Your task to perform on an android device: turn off location history Image 0: 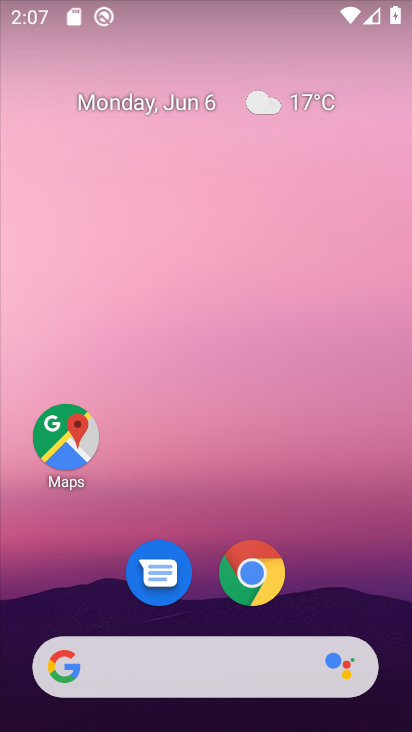
Step 0: drag from (383, 642) to (240, 11)
Your task to perform on an android device: turn off location history Image 1: 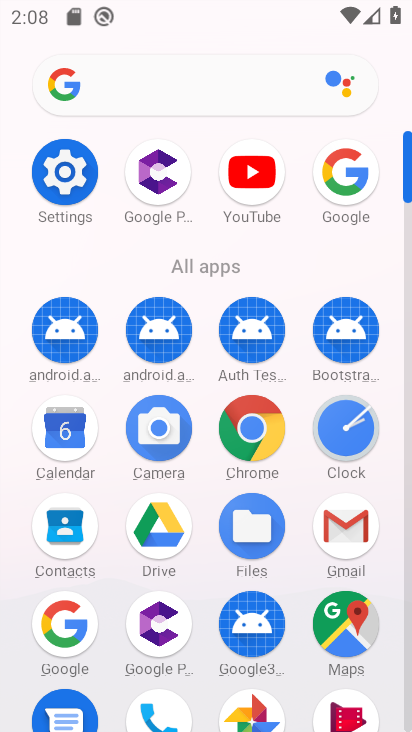
Step 1: click (57, 180)
Your task to perform on an android device: turn off location history Image 2: 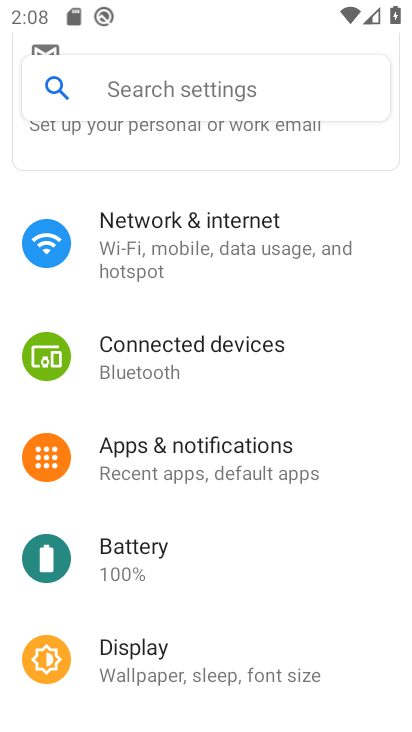
Step 2: click (193, 670)
Your task to perform on an android device: turn off location history Image 3: 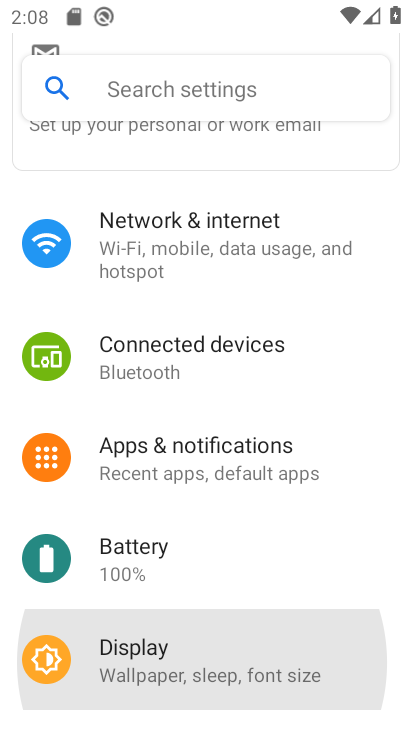
Step 3: drag from (216, 491) to (199, 178)
Your task to perform on an android device: turn off location history Image 4: 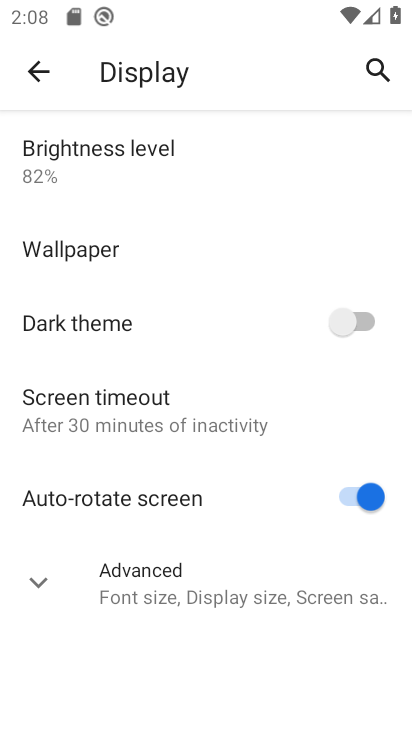
Step 4: press back button
Your task to perform on an android device: turn off location history Image 5: 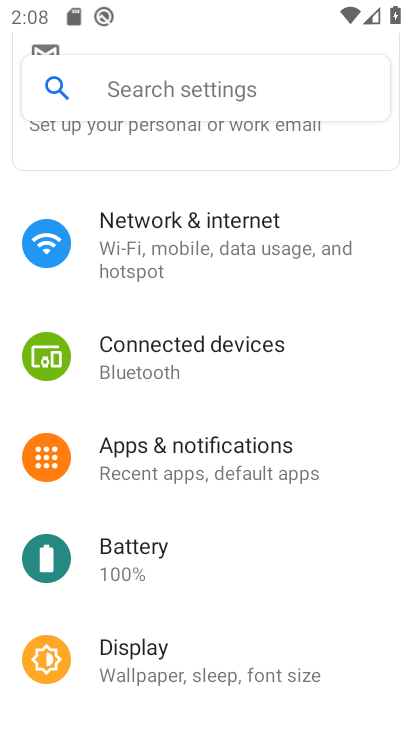
Step 5: drag from (152, 637) to (173, 148)
Your task to perform on an android device: turn off location history Image 6: 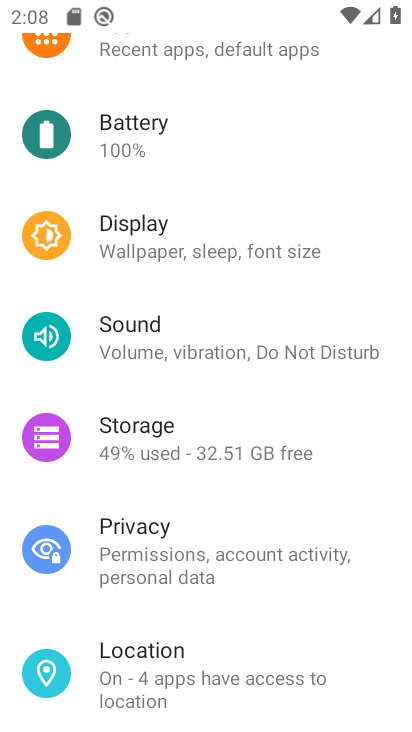
Step 6: click (156, 655)
Your task to perform on an android device: turn off location history Image 7: 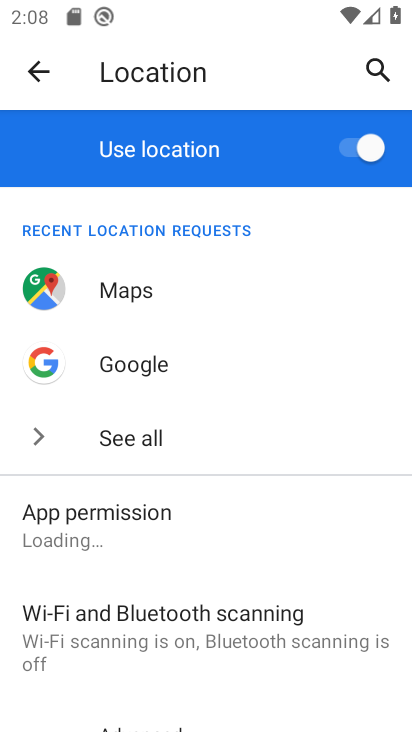
Step 7: drag from (206, 676) to (243, 375)
Your task to perform on an android device: turn off location history Image 8: 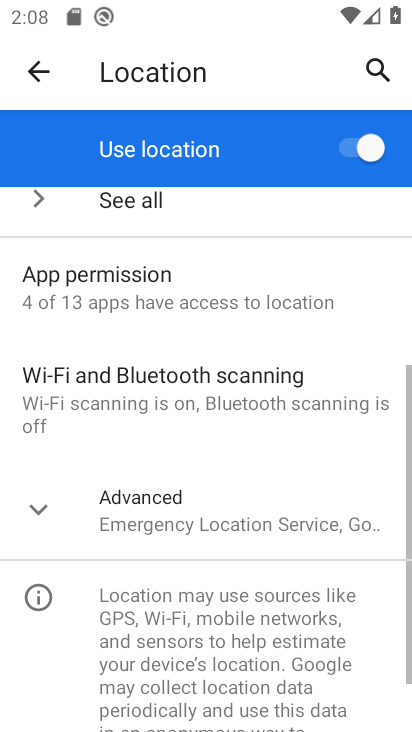
Step 8: click (200, 510)
Your task to perform on an android device: turn off location history Image 9: 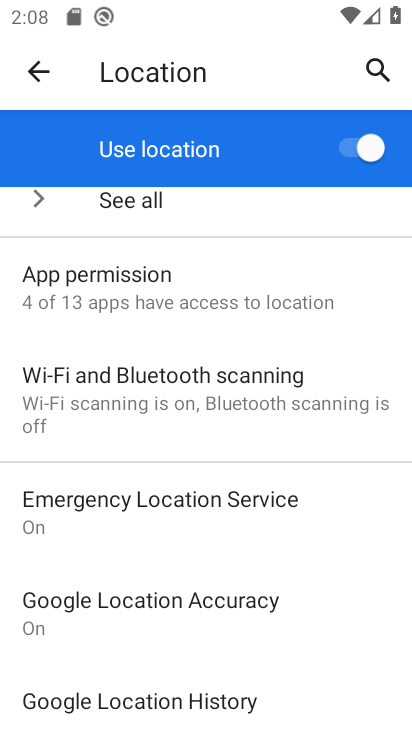
Step 9: click (209, 696)
Your task to perform on an android device: turn off location history Image 10: 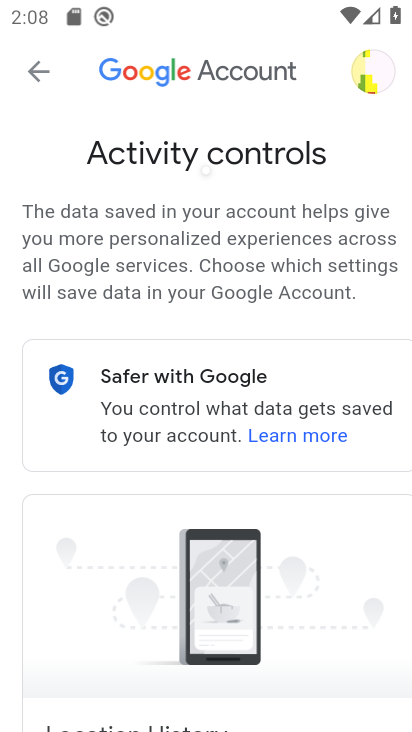
Step 10: drag from (316, 641) to (241, 148)
Your task to perform on an android device: turn off location history Image 11: 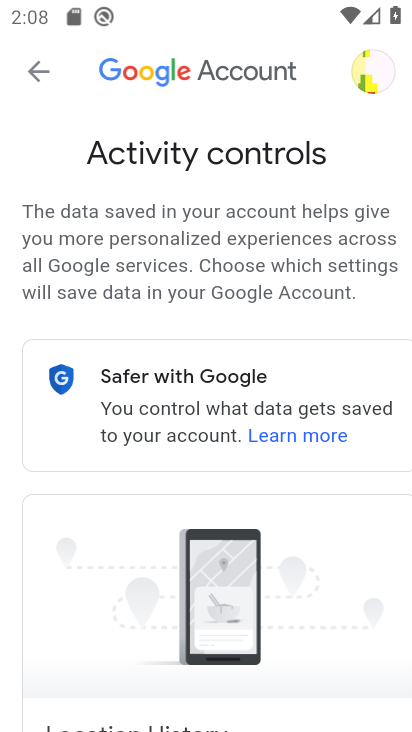
Step 11: drag from (294, 603) to (280, 143)
Your task to perform on an android device: turn off location history Image 12: 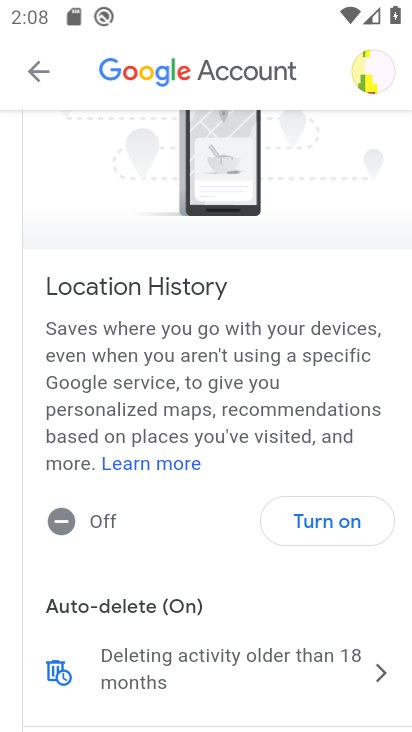
Step 12: click (325, 533)
Your task to perform on an android device: turn off location history Image 13: 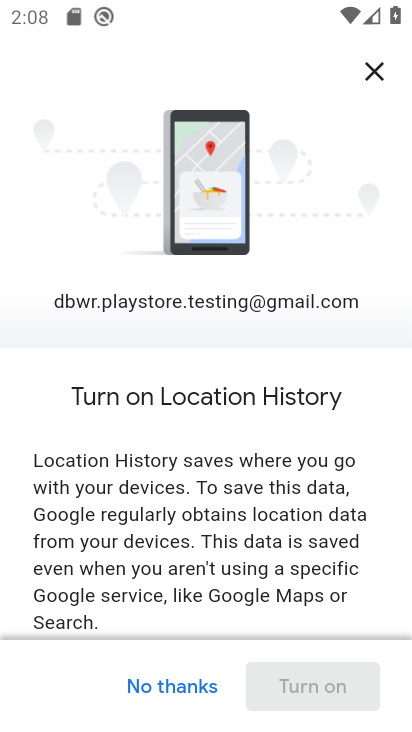
Step 13: task complete